Your task to perform on an android device: Open Amazon Image 0: 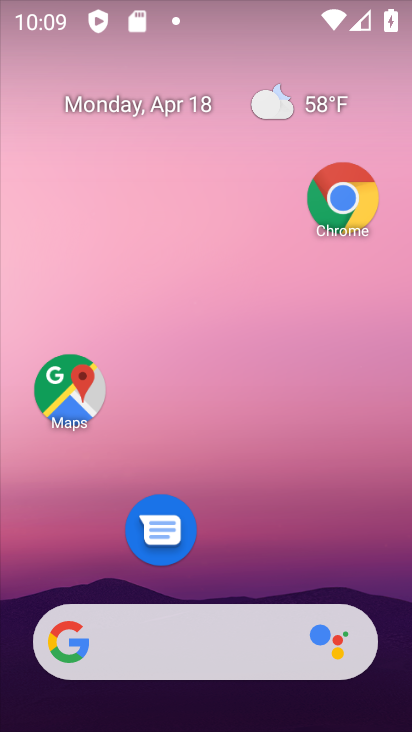
Step 0: click (349, 199)
Your task to perform on an android device: Open Amazon Image 1: 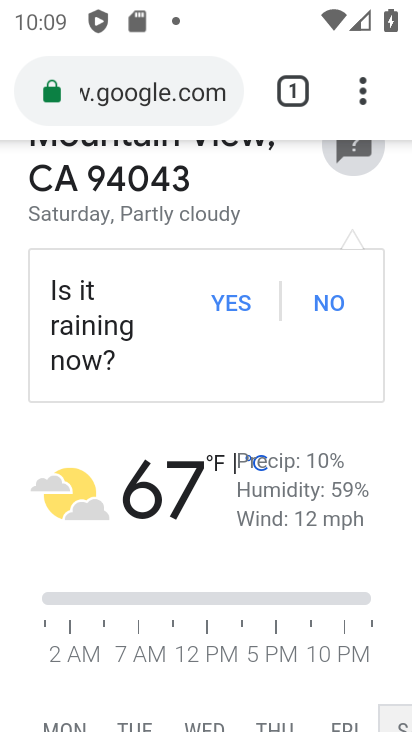
Step 1: click (139, 94)
Your task to perform on an android device: Open Amazon Image 2: 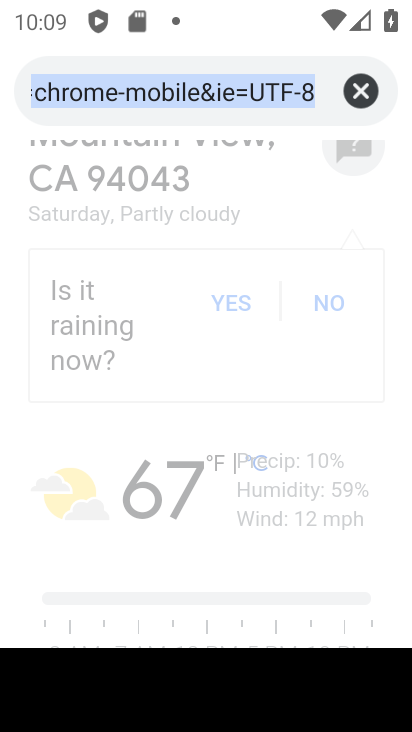
Step 2: type "amazon"
Your task to perform on an android device: Open Amazon Image 3: 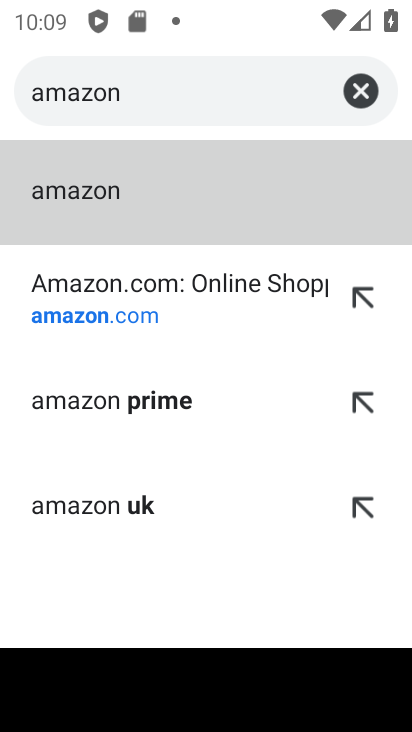
Step 3: click (125, 204)
Your task to perform on an android device: Open Amazon Image 4: 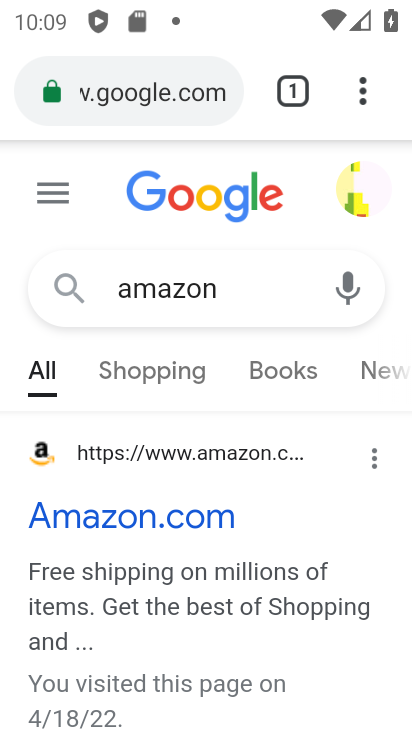
Step 4: task complete